Your task to perform on an android device: delete browsing data in the chrome app Image 0: 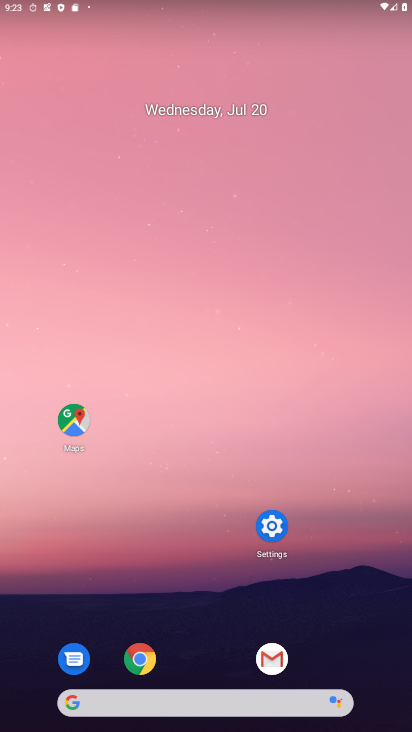
Step 0: press home button
Your task to perform on an android device: delete browsing data in the chrome app Image 1: 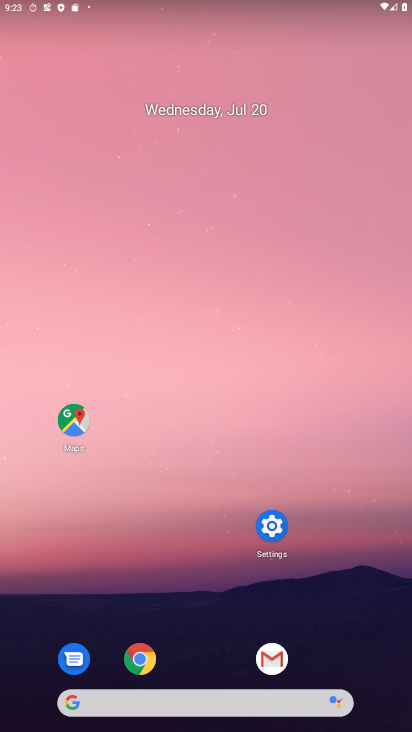
Step 1: click (155, 661)
Your task to perform on an android device: delete browsing data in the chrome app Image 2: 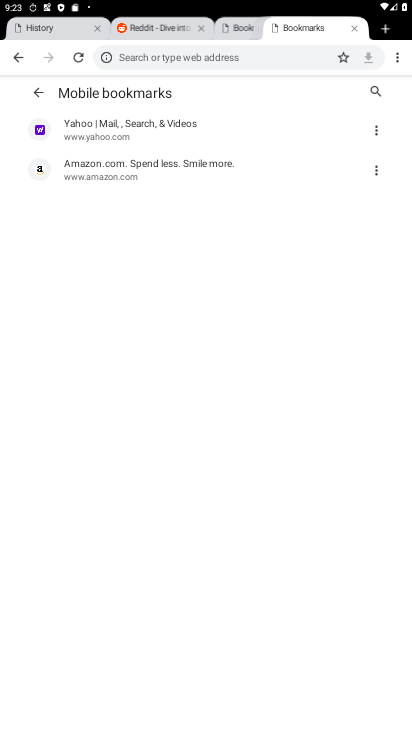
Step 2: click (391, 65)
Your task to perform on an android device: delete browsing data in the chrome app Image 3: 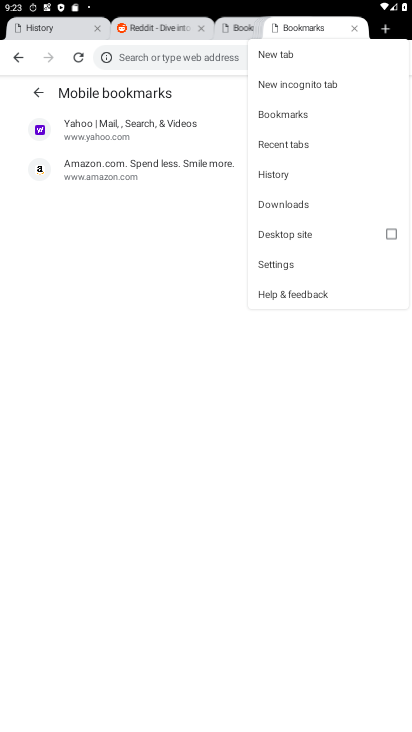
Step 3: click (265, 260)
Your task to perform on an android device: delete browsing data in the chrome app Image 4: 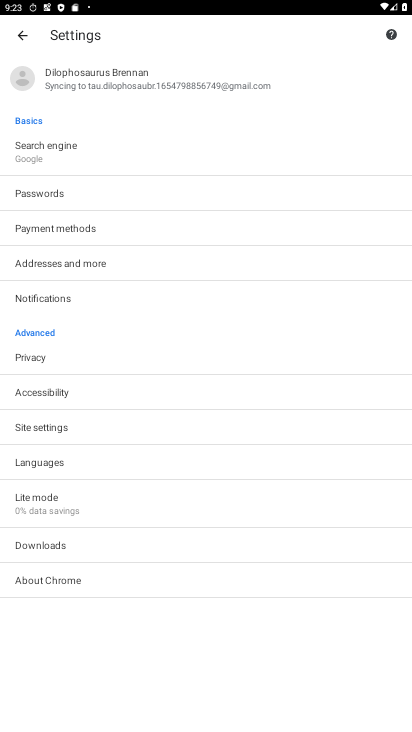
Step 4: click (54, 354)
Your task to perform on an android device: delete browsing data in the chrome app Image 5: 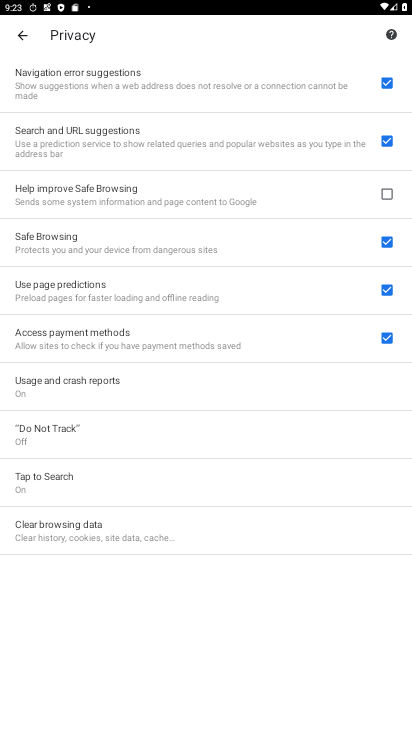
Step 5: click (124, 513)
Your task to perform on an android device: delete browsing data in the chrome app Image 6: 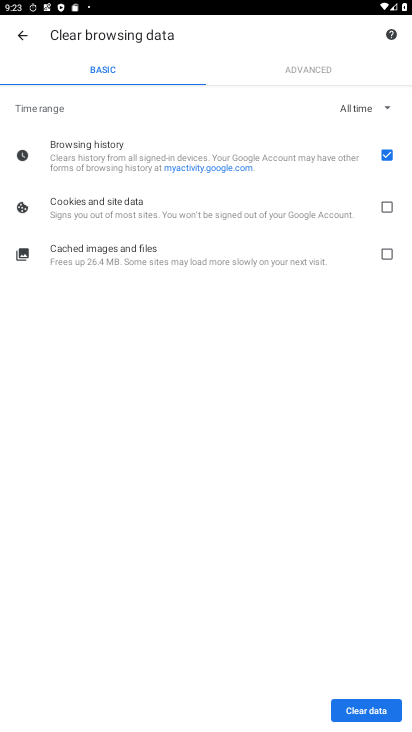
Step 6: click (389, 704)
Your task to perform on an android device: delete browsing data in the chrome app Image 7: 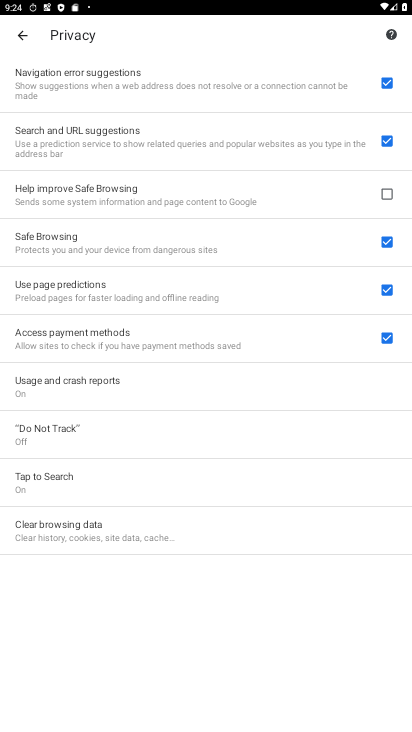
Step 7: task complete